Your task to perform on an android device: Open the map Image 0: 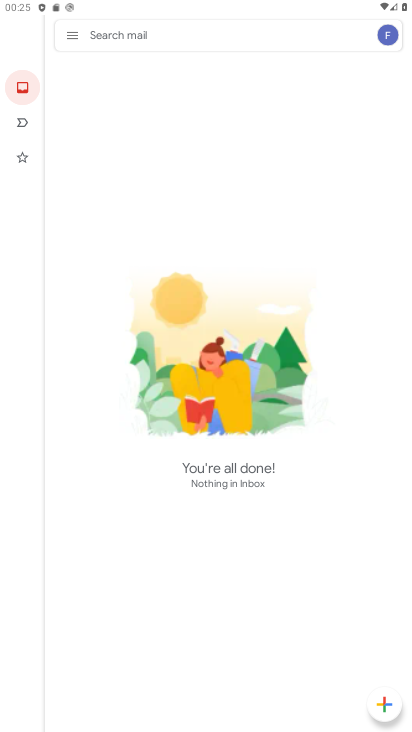
Step 0: press back button
Your task to perform on an android device: Open the map Image 1: 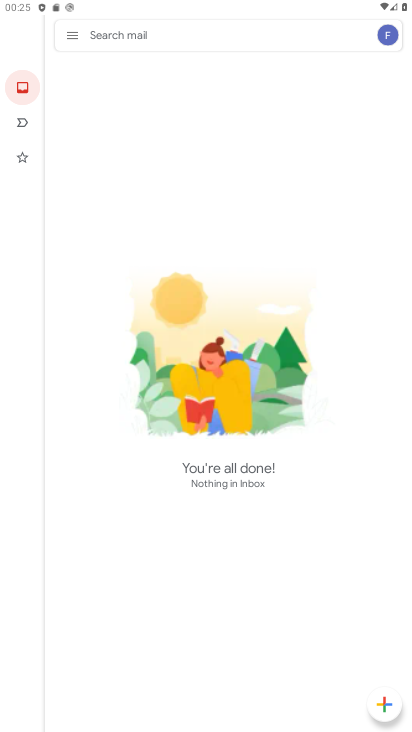
Step 1: press back button
Your task to perform on an android device: Open the map Image 2: 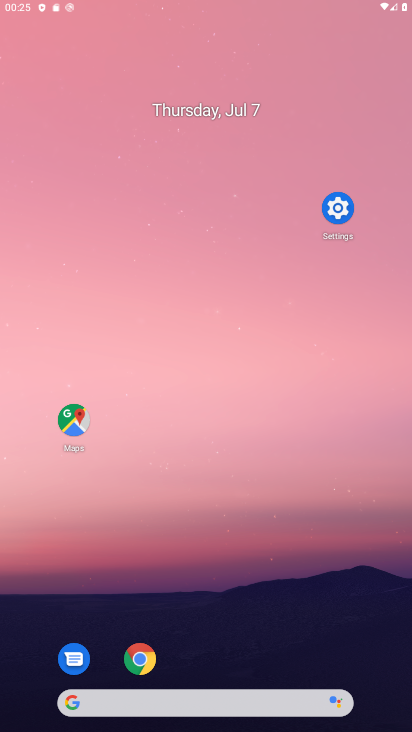
Step 2: press back button
Your task to perform on an android device: Open the map Image 3: 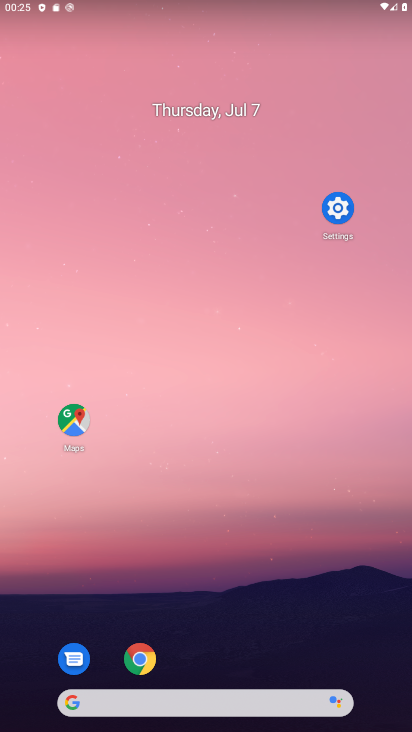
Step 3: drag from (269, 690) to (117, 94)
Your task to perform on an android device: Open the map Image 4: 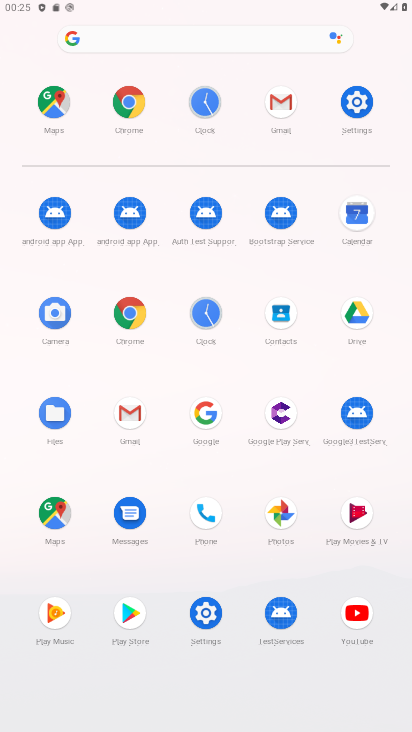
Step 4: click (49, 525)
Your task to perform on an android device: Open the map Image 5: 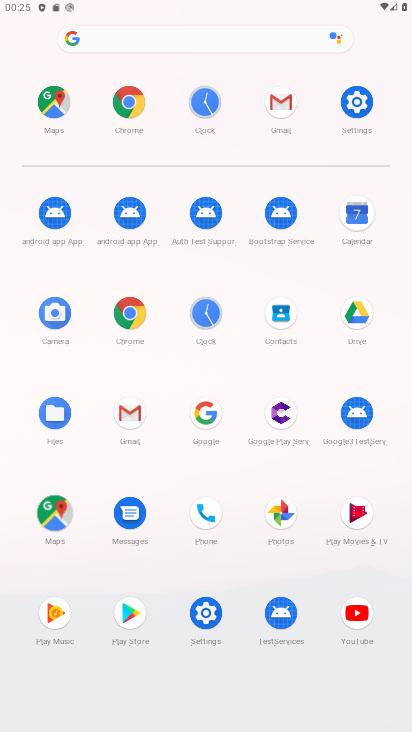
Step 5: click (49, 525)
Your task to perform on an android device: Open the map Image 6: 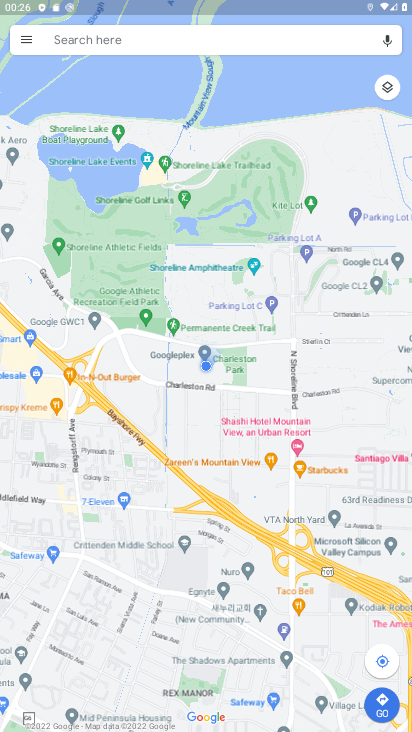
Step 6: task complete